Your task to perform on an android device: Open location settings Image 0: 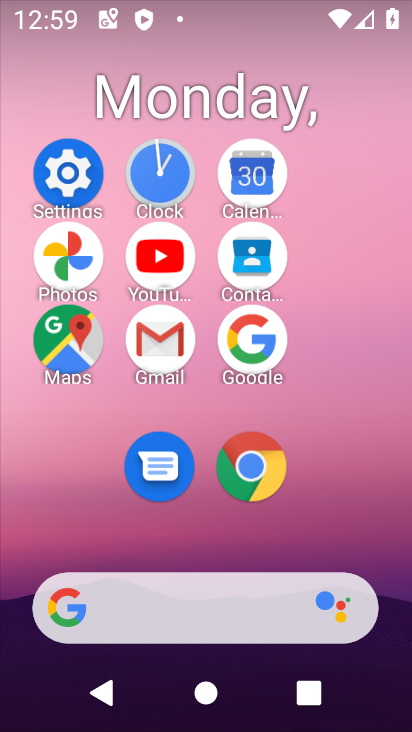
Step 0: click (44, 175)
Your task to perform on an android device: Open location settings Image 1: 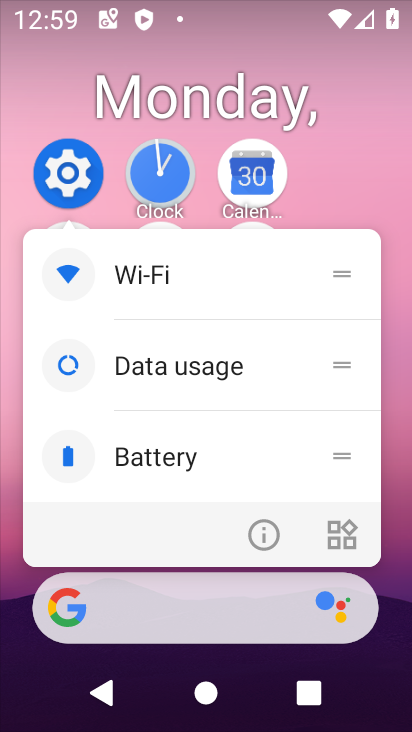
Step 1: click (53, 181)
Your task to perform on an android device: Open location settings Image 2: 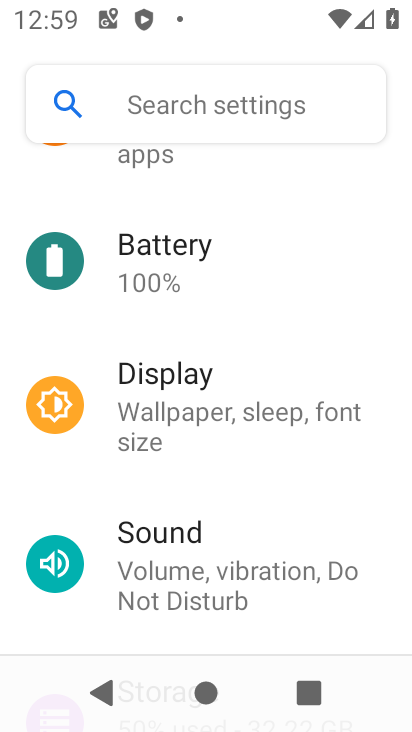
Step 2: drag from (287, 542) to (243, 187)
Your task to perform on an android device: Open location settings Image 3: 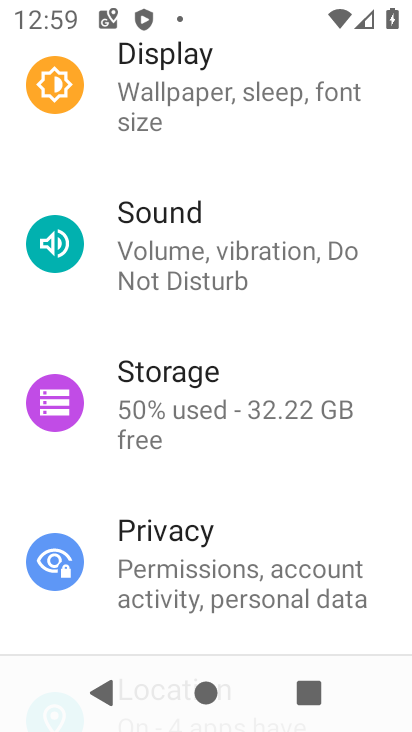
Step 3: drag from (318, 589) to (297, 167)
Your task to perform on an android device: Open location settings Image 4: 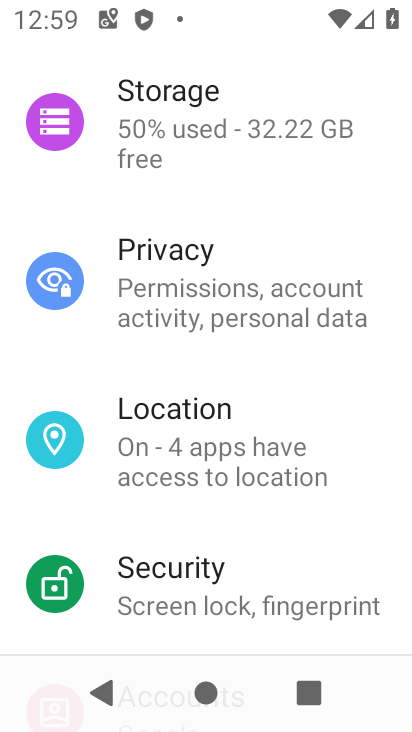
Step 4: click (245, 426)
Your task to perform on an android device: Open location settings Image 5: 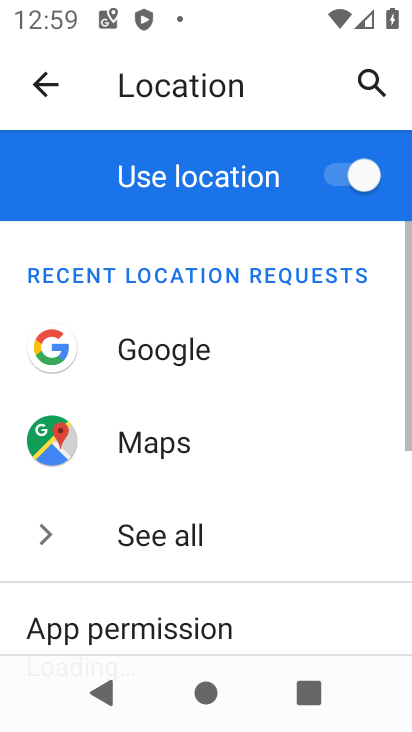
Step 5: task complete